Your task to perform on an android device: Search for vegetarian restaurants on Maps Image 0: 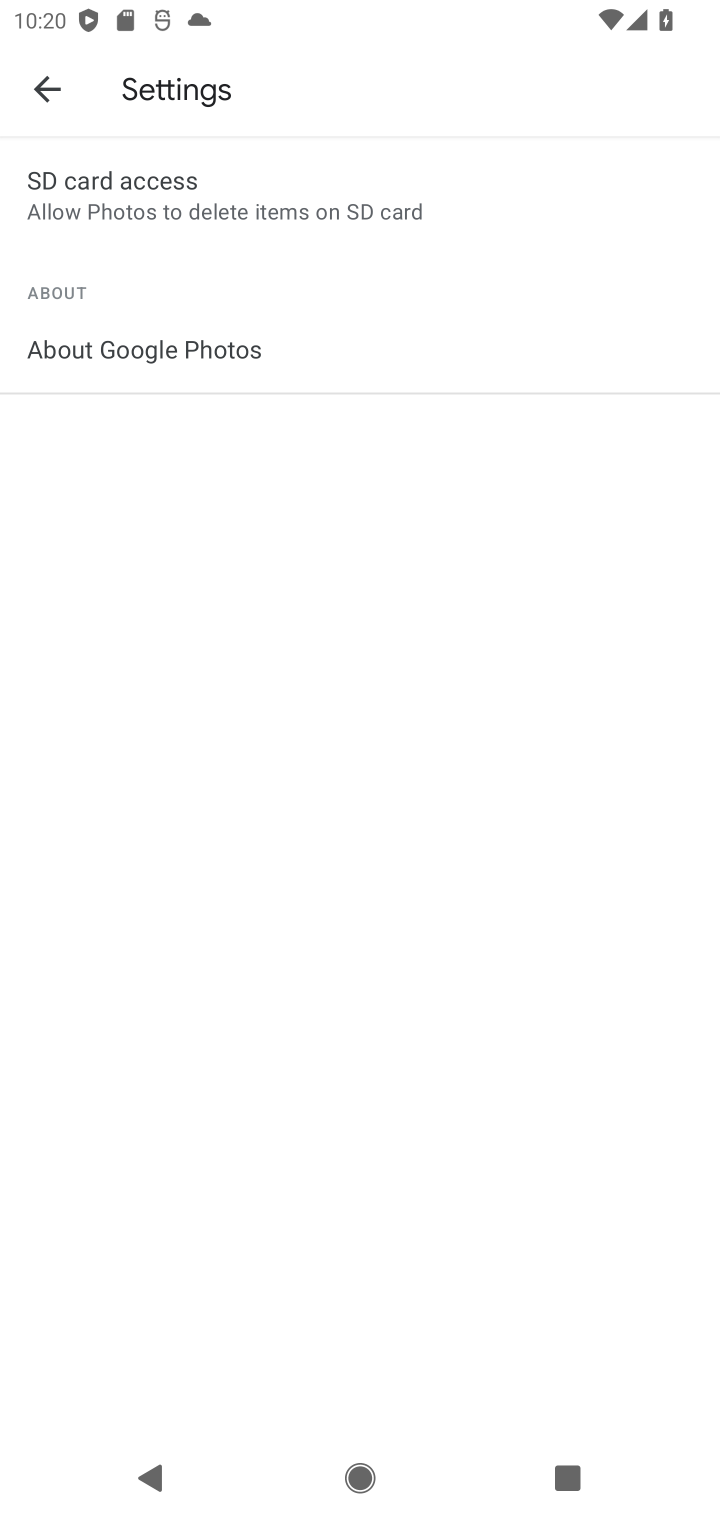
Step 0: press home button
Your task to perform on an android device: Search for vegetarian restaurants on Maps Image 1: 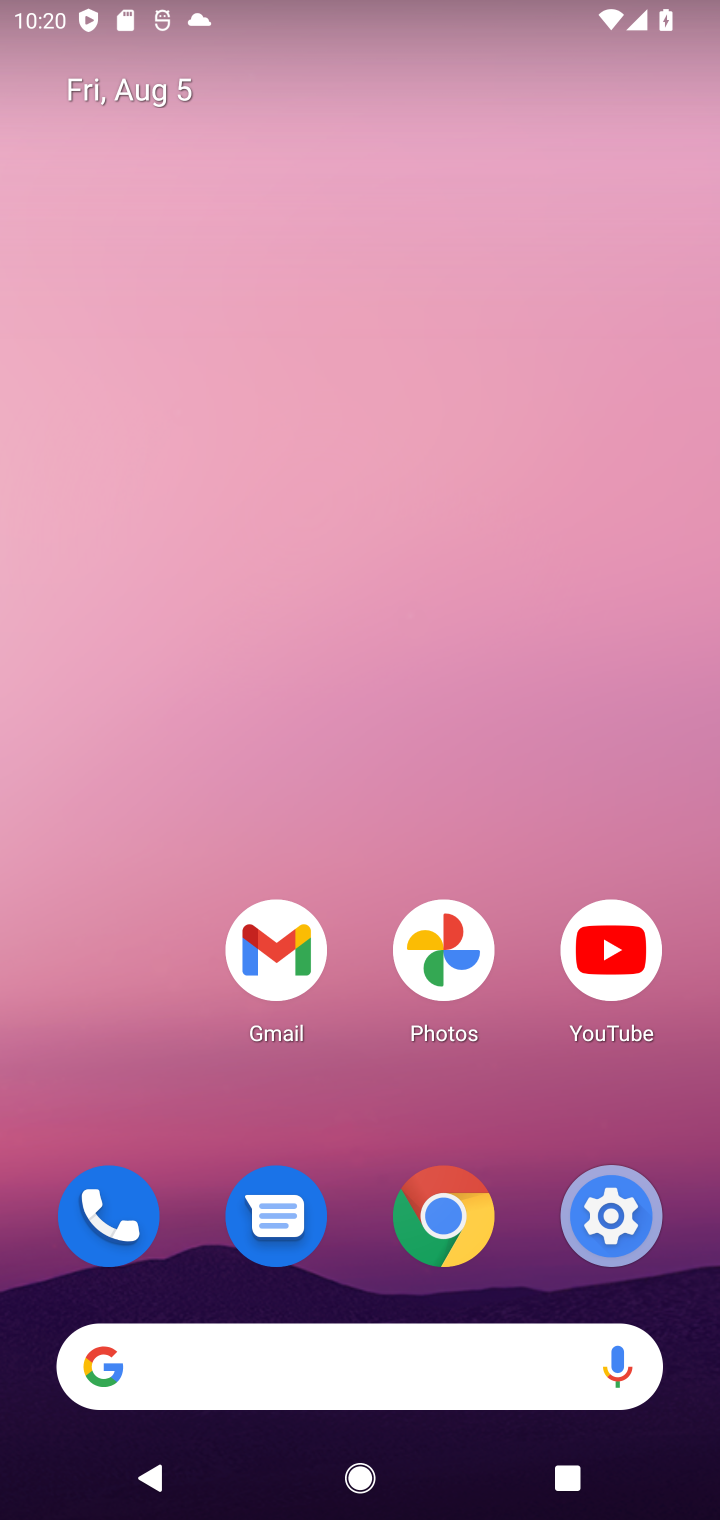
Step 1: drag from (451, 1333) to (559, 12)
Your task to perform on an android device: Search for vegetarian restaurants on Maps Image 2: 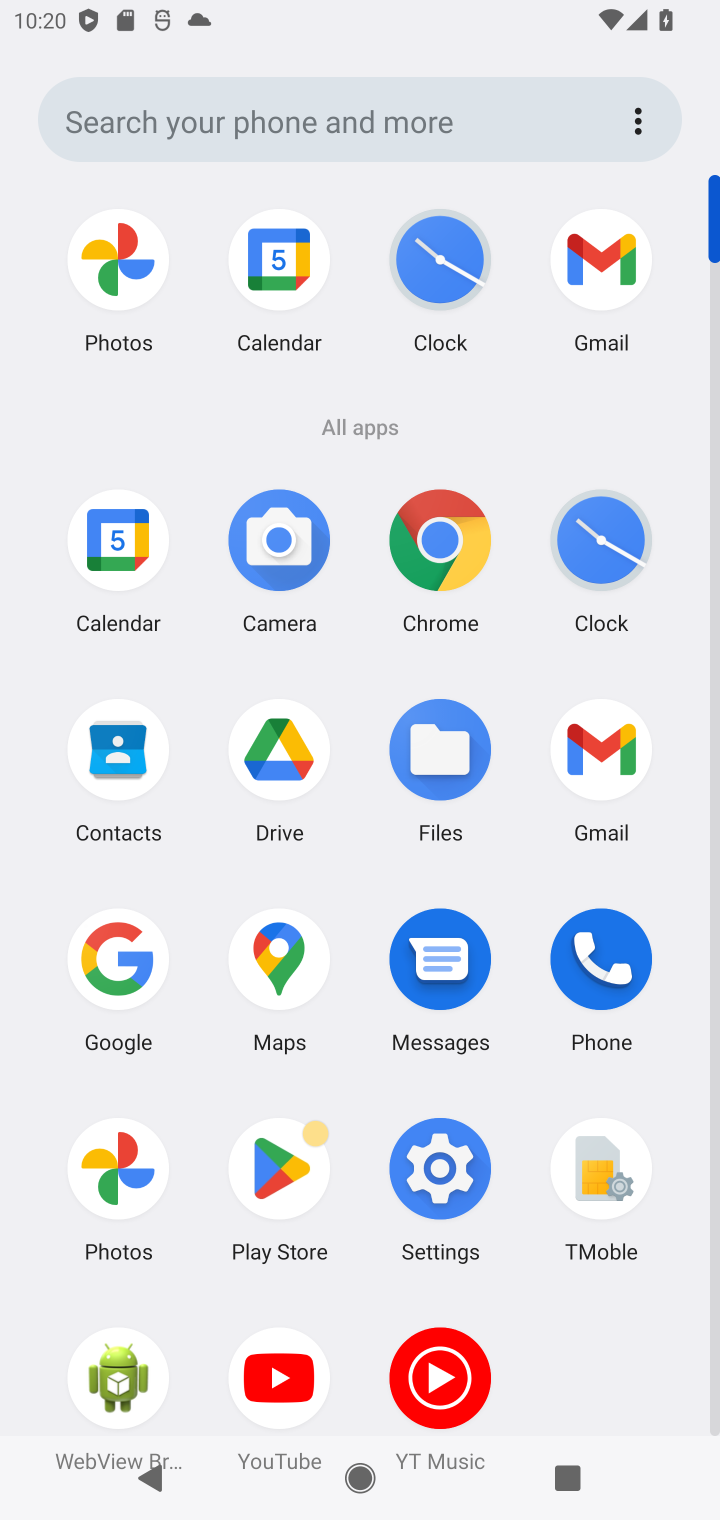
Step 2: click (270, 969)
Your task to perform on an android device: Search for vegetarian restaurants on Maps Image 3: 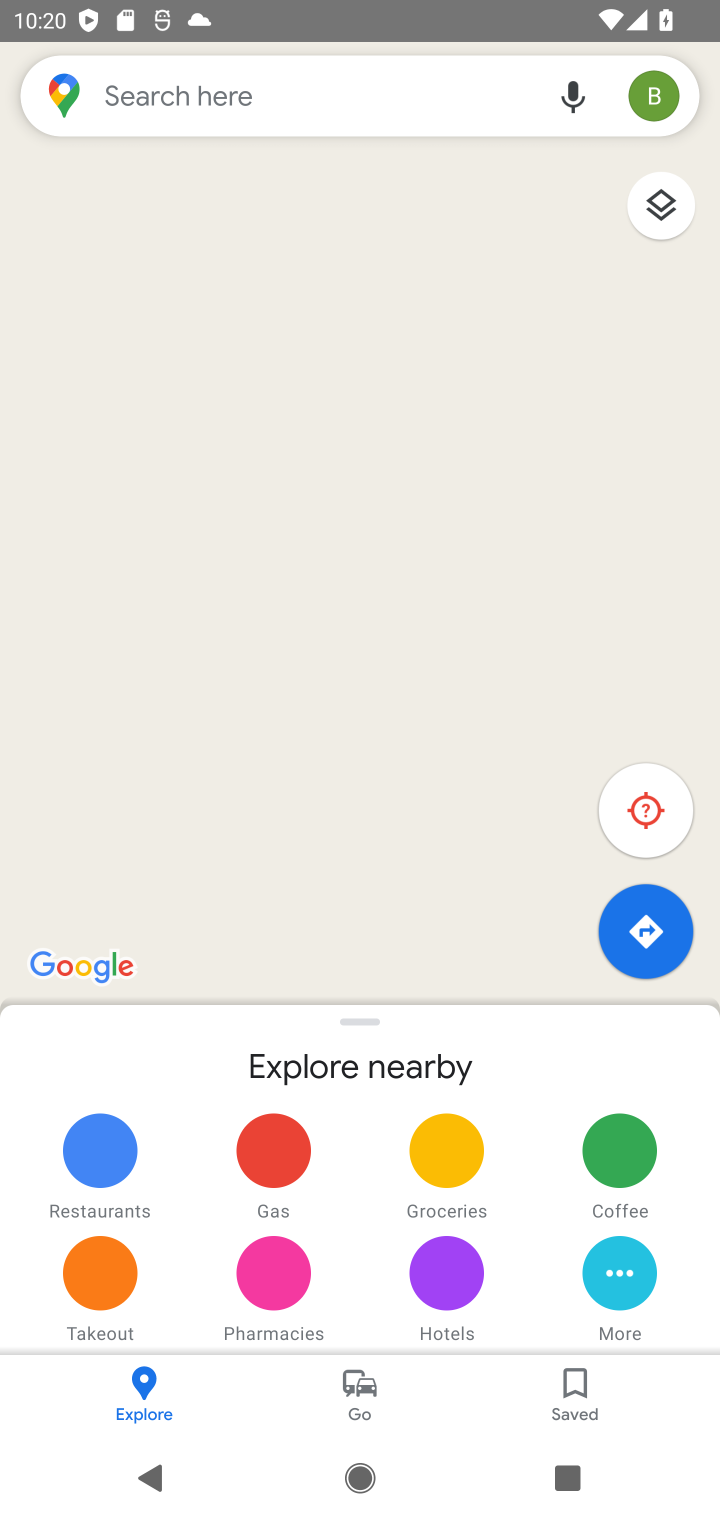
Step 3: click (362, 75)
Your task to perform on an android device: Search for vegetarian restaurants on Maps Image 4: 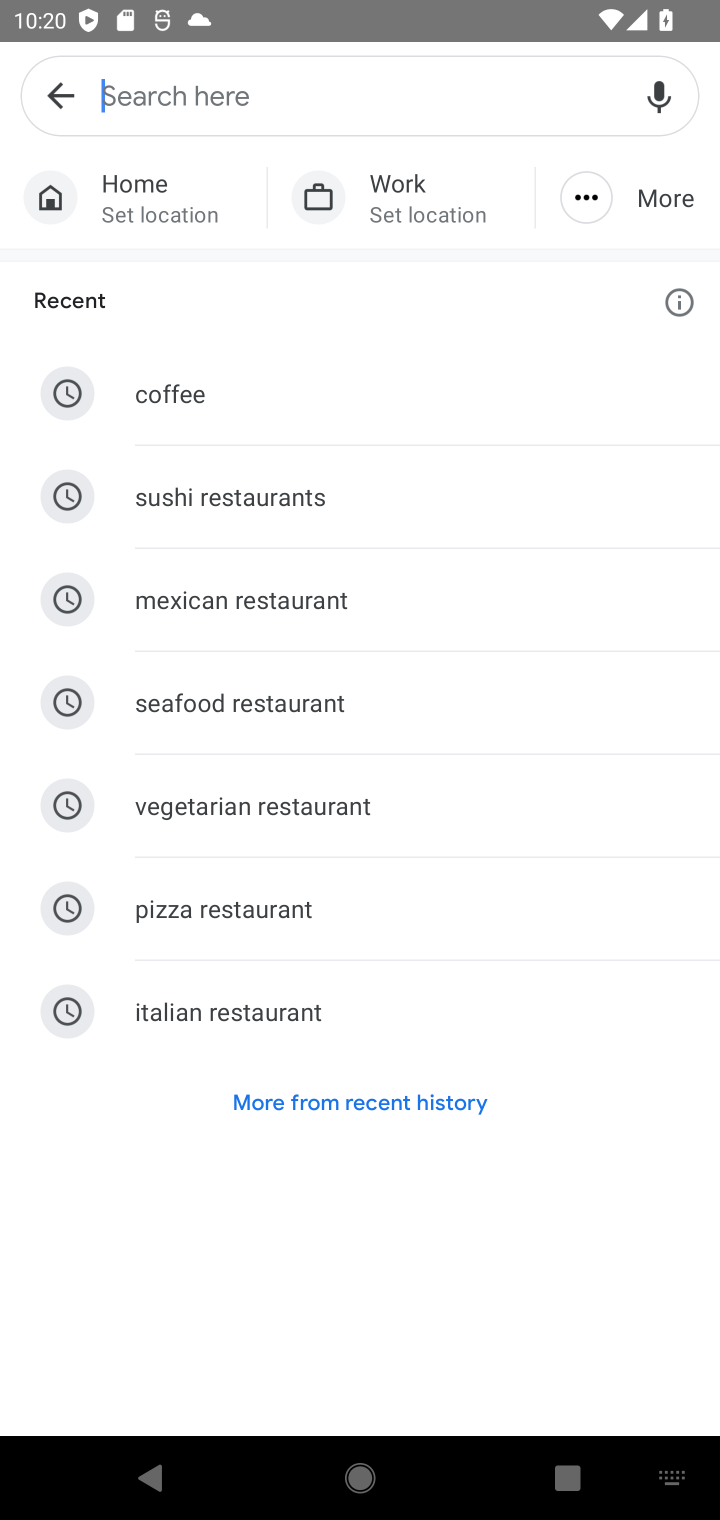
Step 4: click (351, 798)
Your task to perform on an android device: Search for vegetarian restaurants on Maps Image 5: 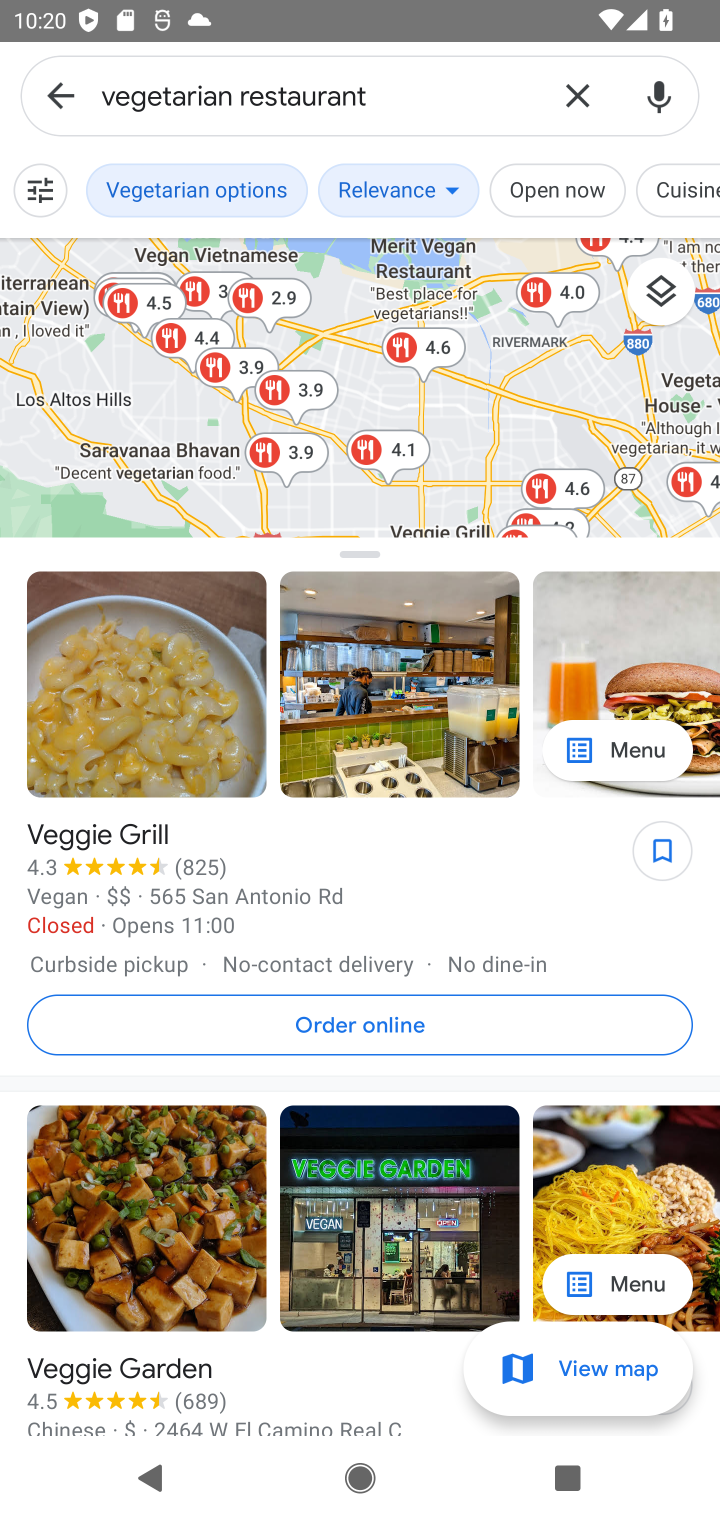
Step 5: task complete